Your task to perform on an android device: Open the stopwatch Image 0: 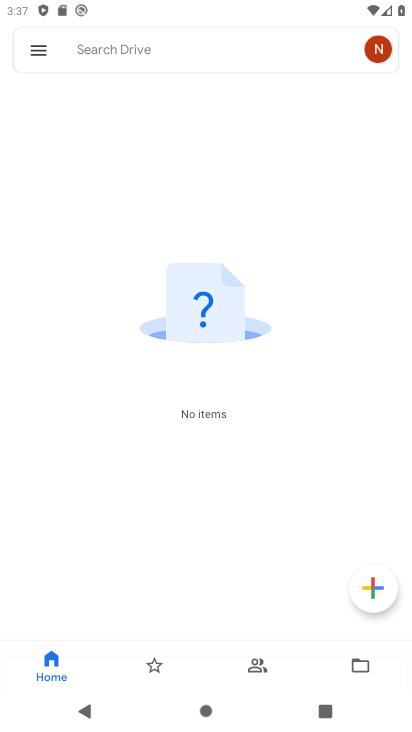
Step 0: press home button
Your task to perform on an android device: Open the stopwatch Image 1: 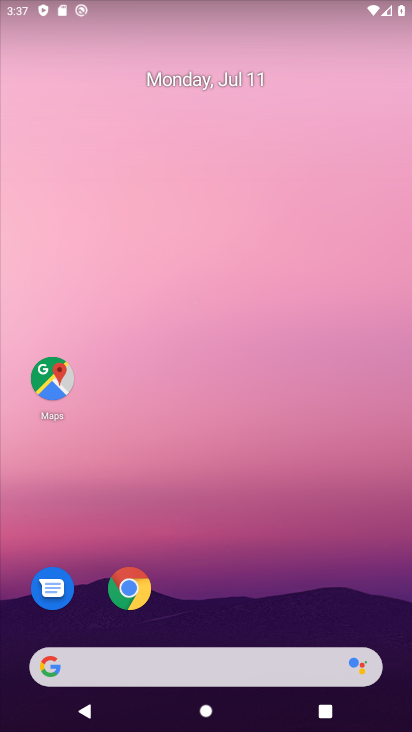
Step 1: drag from (233, 644) to (228, 55)
Your task to perform on an android device: Open the stopwatch Image 2: 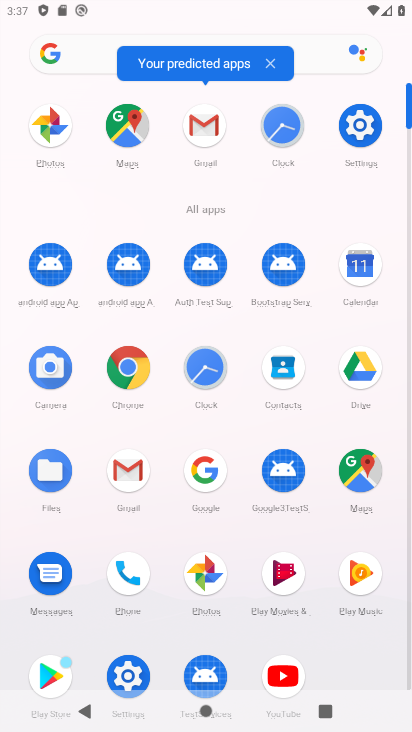
Step 2: click (207, 371)
Your task to perform on an android device: Open the stopwatch Image 3: 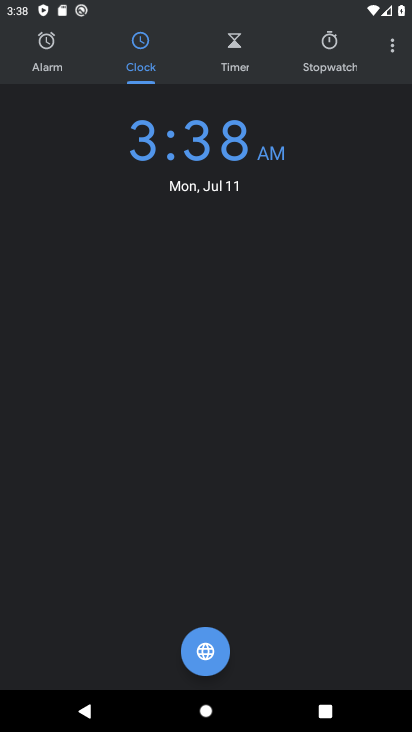
Step 3: click (329, 60)
Your task to perform on an android device: Open the stopwatch Image 4: 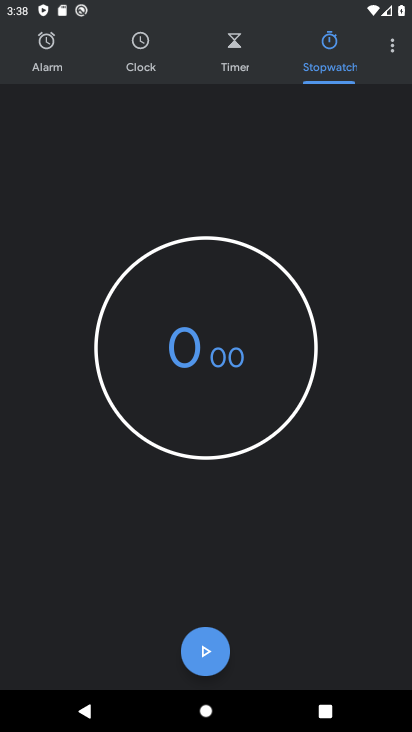
Step 4: task complete